Your task to perform on an android device: Open Amazon Image 0: 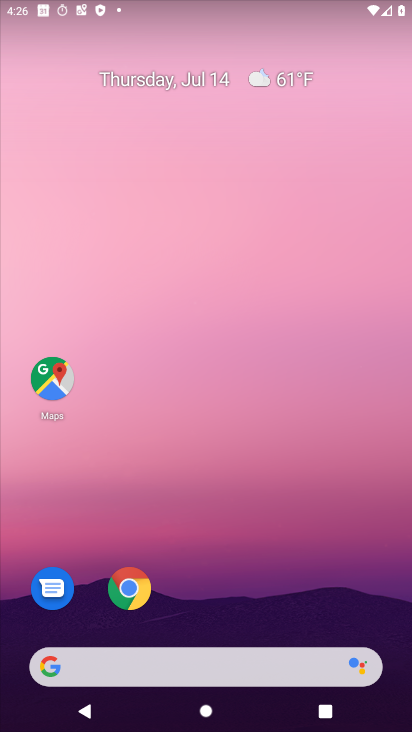
Step 0: click (131, 586)
Your task to perform on an android device: Open Amazon Image 1: 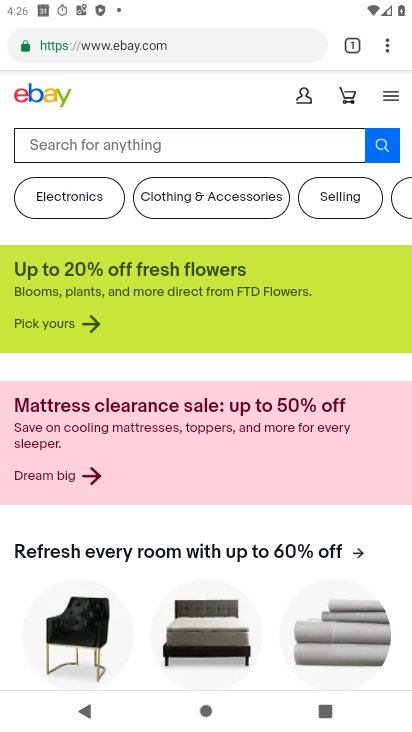
Step 1: click (217, 38)
Your task to perform on an android device: Open Amazon Image 2: 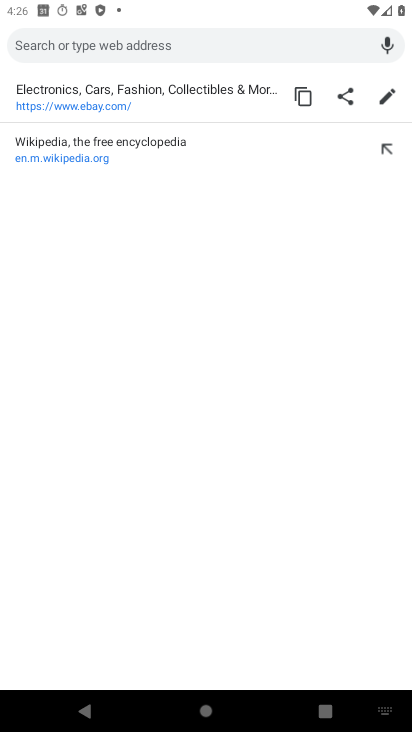
Step 2: type "Amazon"
Your task to perform on an android device: Open Amazon Image 3: 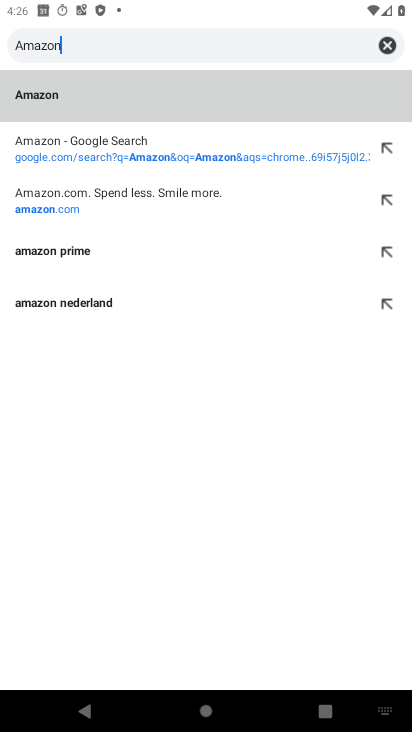
Step 3: click (104, 143)
Your task to perform on an android device: Open Amazon Image 4: 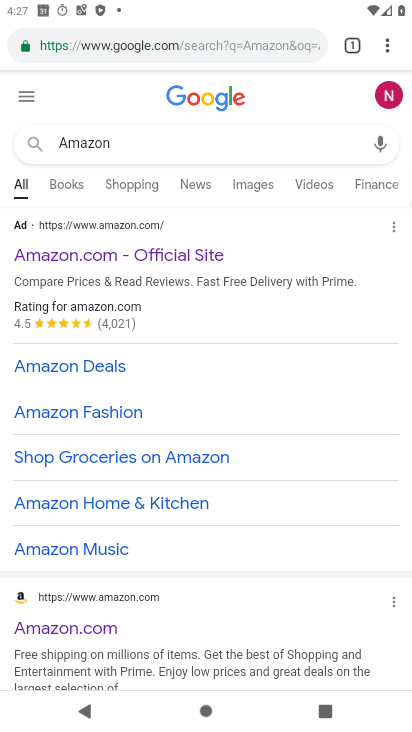
Step 4: click (93, 631)
Your task to perform on an android device: Open Amazon Image 5: 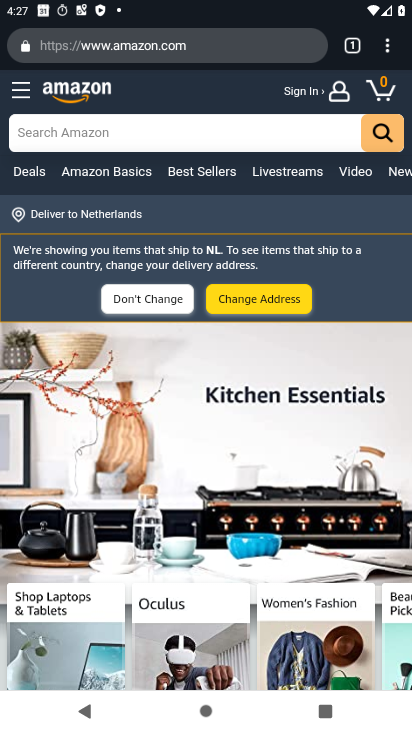
Step 5: task complete